Your task to perform on an android device: change notifications settings Image 0: 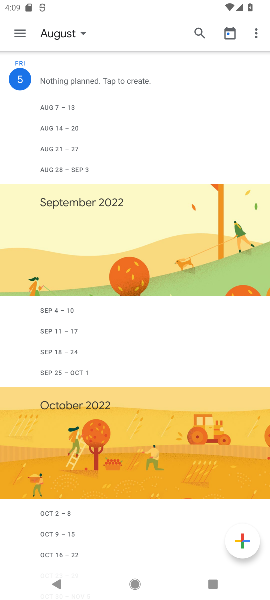
Step 0: press home button
Your task to perform on an android device: change notifications settings Image 1: 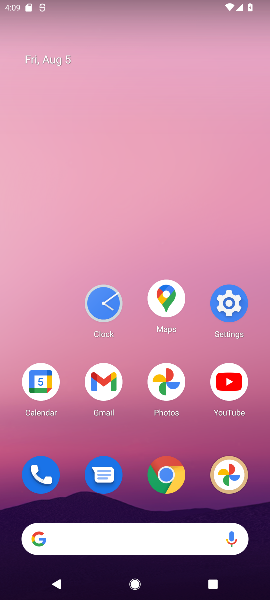
Step 1: drag from (255, 567) to (165, 200)
Your task to perform on an android device: change notifications settings Image 2: 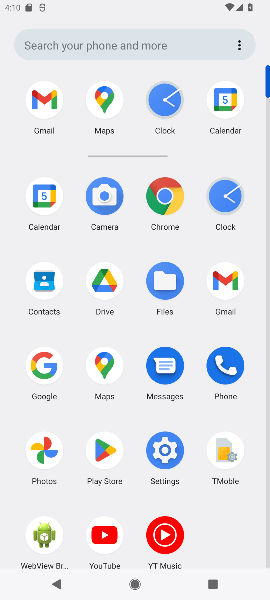
Step 2: click (169, 453)
Your task to perform on an android device: change notifications settings Image 3: 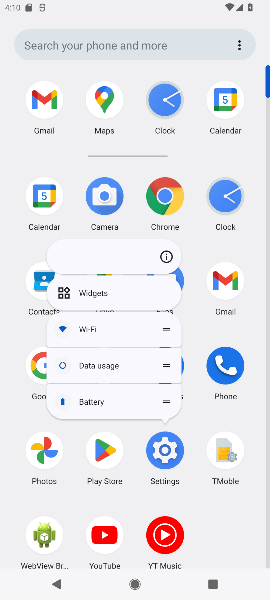
Step 3: click (152, 450)
Your task to perform on an android device: change notifications settings Image 4: 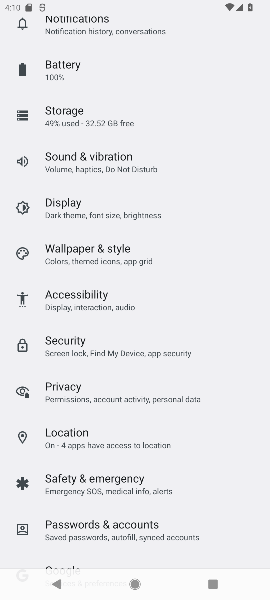
Step 4: drag from (122, 79) to (102, 347)
Your task to perform on an android device: change notifications settings Image 5: 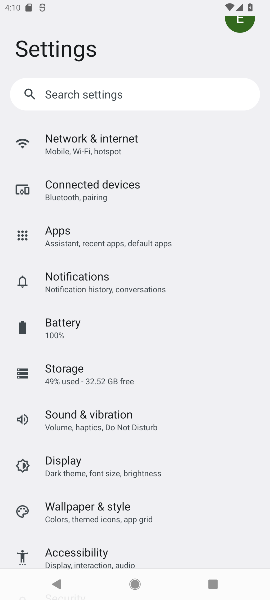
Step 5: click (100, 271)
Your task to perform on an android device: change notifications settings Image 6: 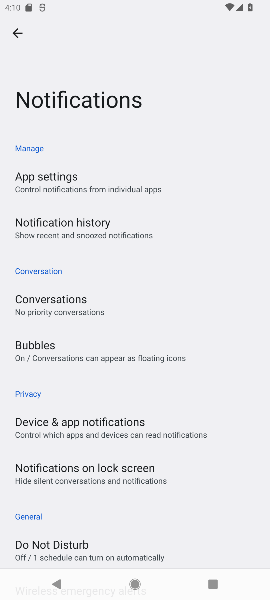
Step 6: drag from (153, 388) to (179, 181)
Your task to perform on an android device: change notifications settings Image 7: 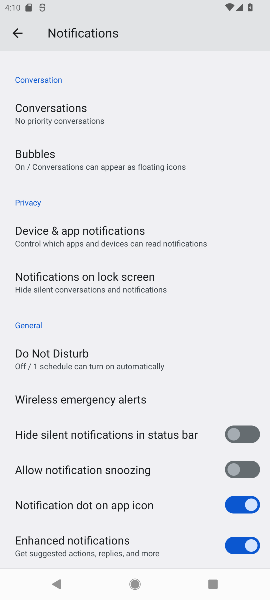
Step 7: click (236, 493)
Your task to perform on an android device: change notifications settings Image 8: 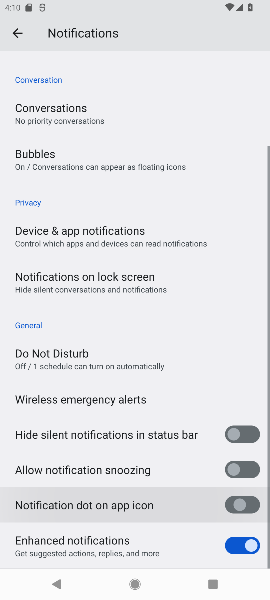
Step 8: click (232, 543)
Your task to perform on an android device: change notifications settings Image 9: 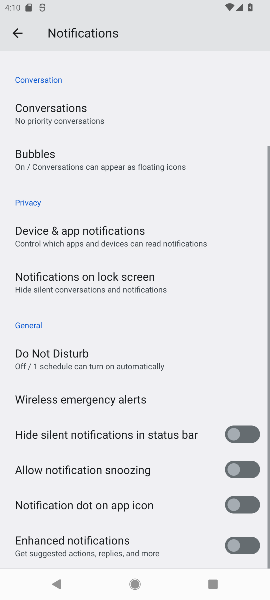
Step 9: click (254, 462)
Your task to perform on an android device: change notifications settings Image 10: 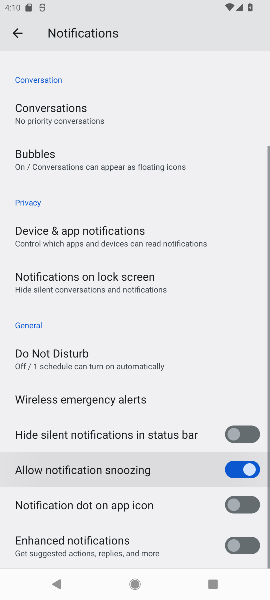
Step 10: click (254, 423)
Your task to perform on an android device: change notifications settings Image 11: 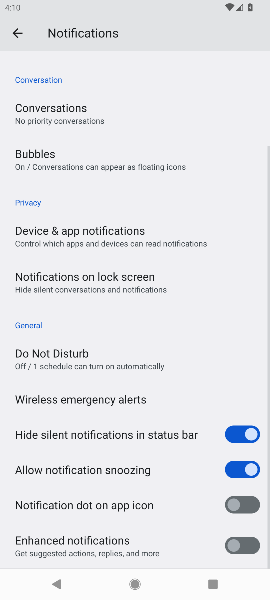
Step 11: task complete